Your task to perform on an android device: turn on translation in the chrome app Image 0: 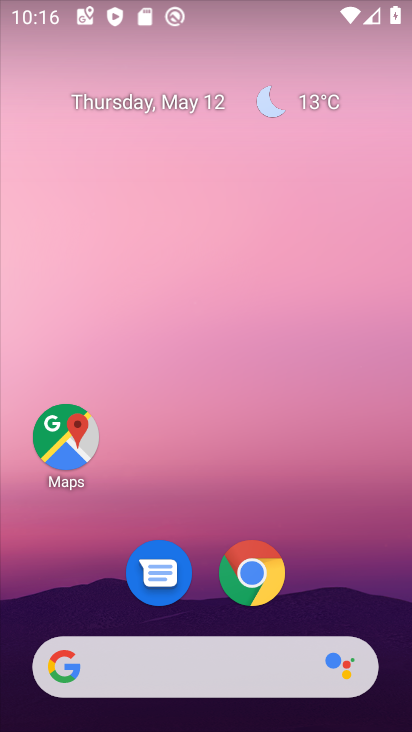
Step 0: drag from (214, 634) to (259, 2)
Your task to perform on an android device: turn on translation in the chrome app Image 1: 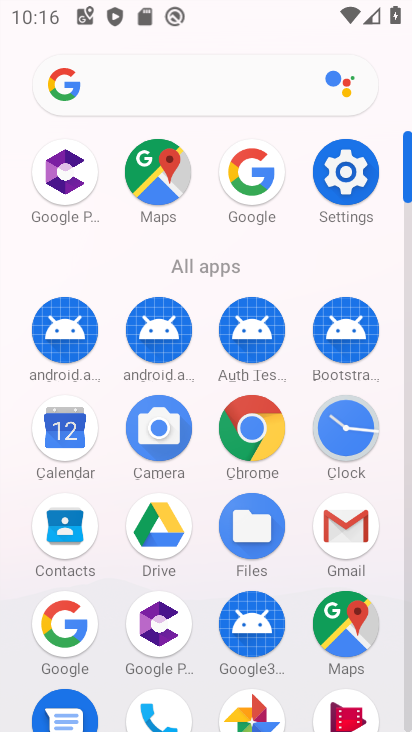
Step 1: click (262, 439)
Your task to perform on an android device: turn on translation in the chrome app Image 2: 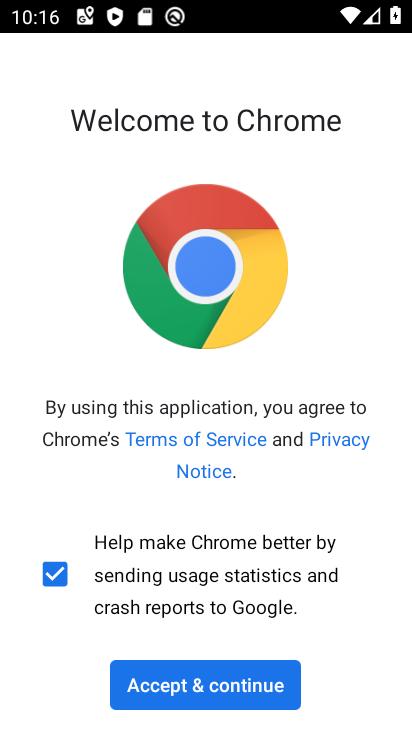
Step 2: click (190, 694)
Your task to perform on an android device: turn on translation in the chrome app Image 3: 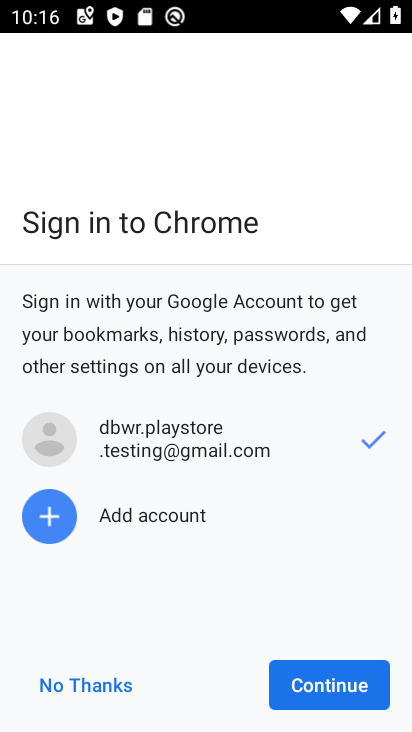
Step 3: click (330, 667)
Your task to perform on an android device: turn on translation in the chrome app Image 4: 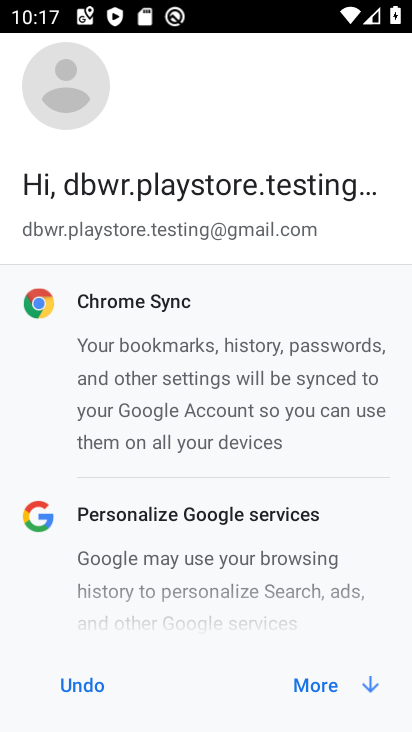
Step 4: click (324, 688)
Your task to perform on an android device: turn on translation in the chrome app Image 5: 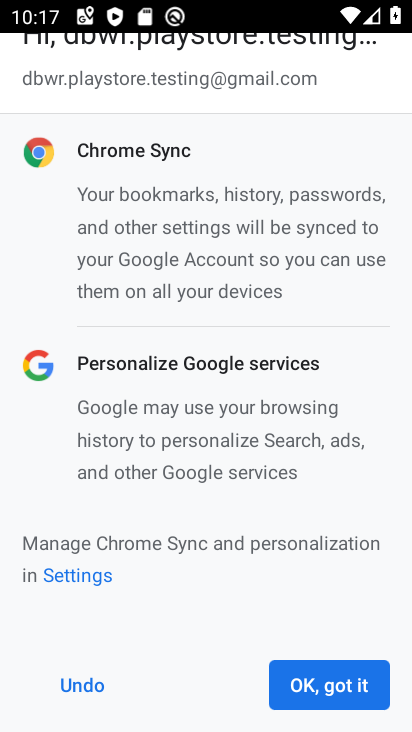
Step 5: click (294, 678)
Your task to perform on an android device: turn on translation in the chrome app Image 6: 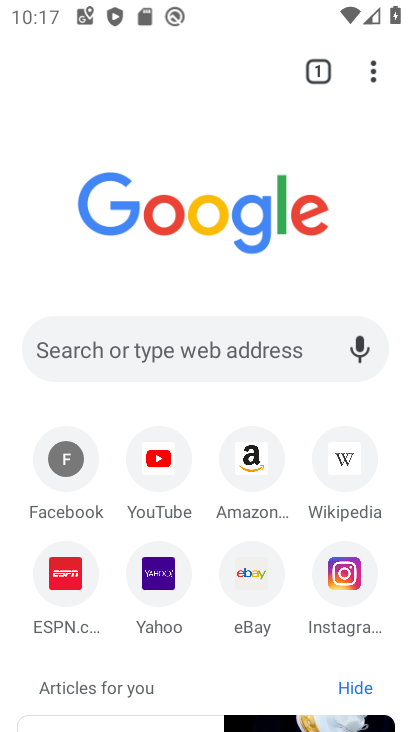
Step 6: click (378, 66)
Your task to perform on an android device: turn on translation in the chrome app Image 7: 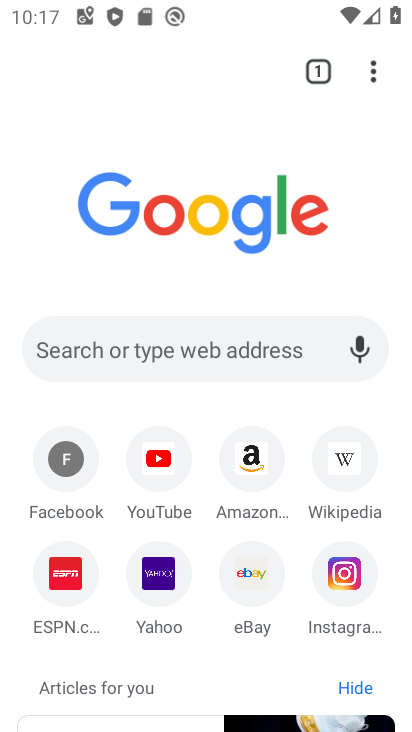
Step 7: click (372, 71)
Your task to perform on an android device: turn on translation in the chrome app Image 8: 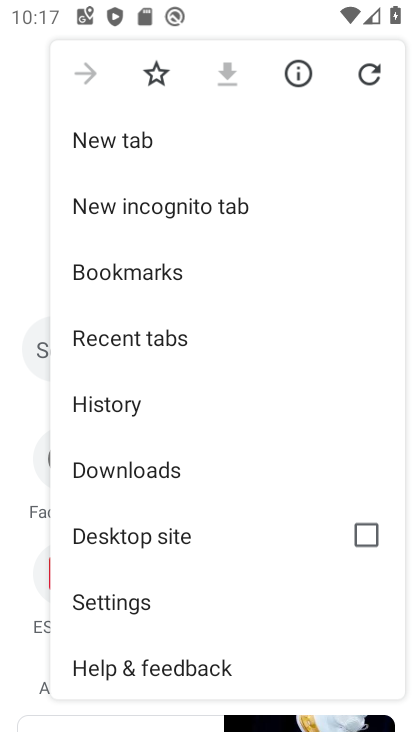
Step 8: click (149, 594)
Your task to perform on an android device: turn on translation in the chrome app Image 9: 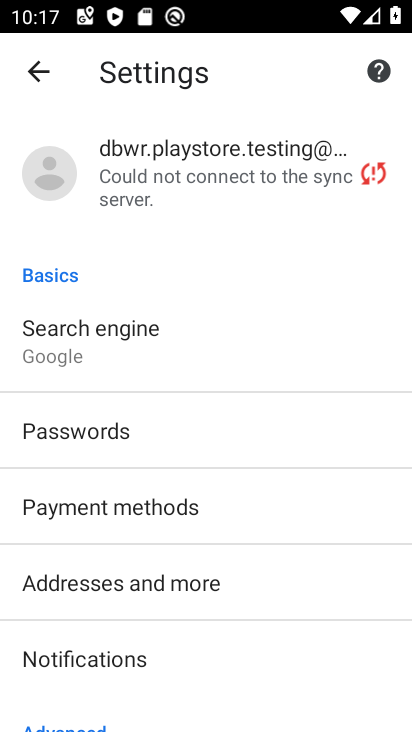
Step 9: drag from (168, 656) to (124, 174)
Your task to perform on an android device: turn on translation in the chrome app Image 10: 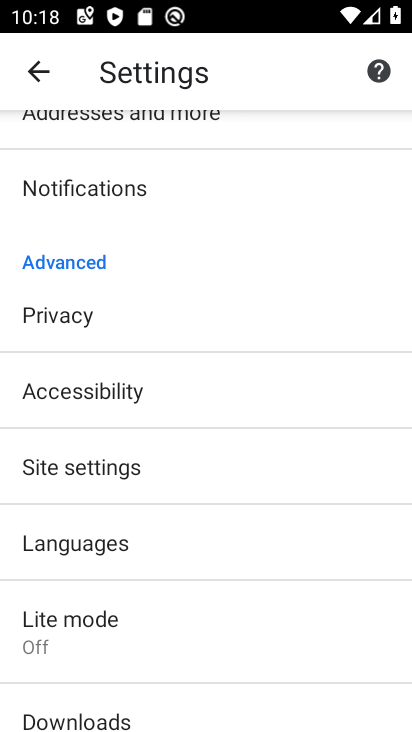
Step 10: click (94, 546)
Your task to perform on an android device: turn on translation in the chrome app Image 11: 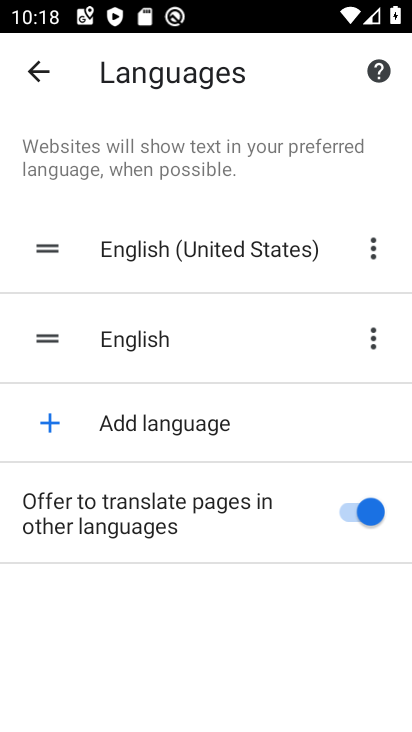
Step 11: task complete